Your task to perform on an android device: turn off location Image 0: 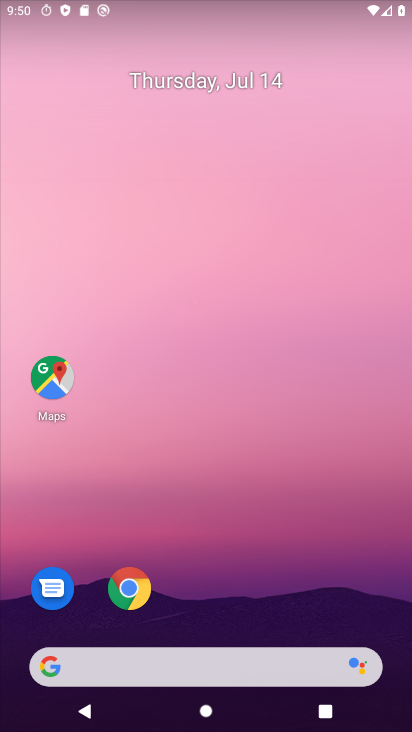
Step 0: drag from (187, 649) to (157, 243)
Your task to perform on an android device: turn off location Image 1: 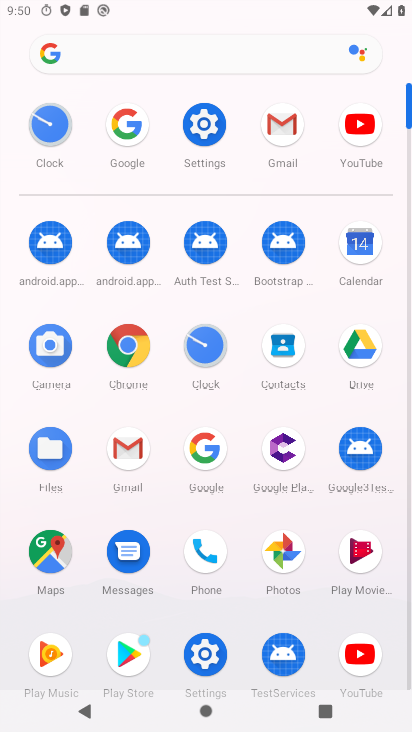
Step 1: click (215, 122)
Your task to perform on an android device: turn off location Image 2: 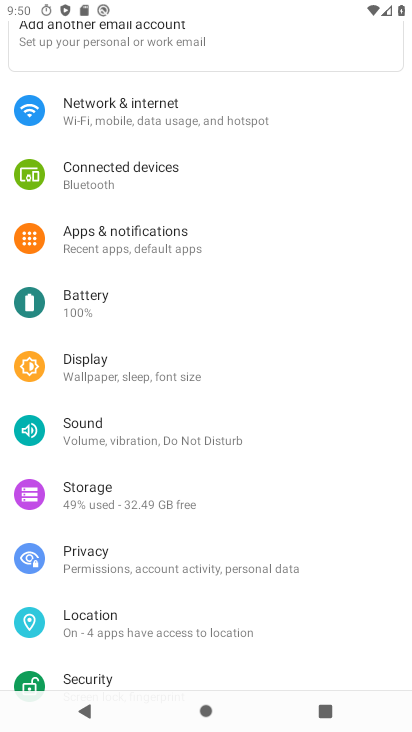
Step 2: click (96, 622)
Your task to perform on an android device: turn off location Image 3: 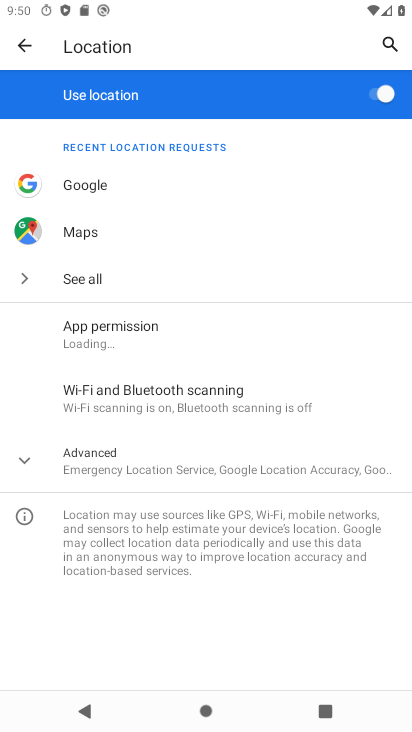
Step 3: click (377, 95)
Your task to perform on an android device: turn off location Image 4: 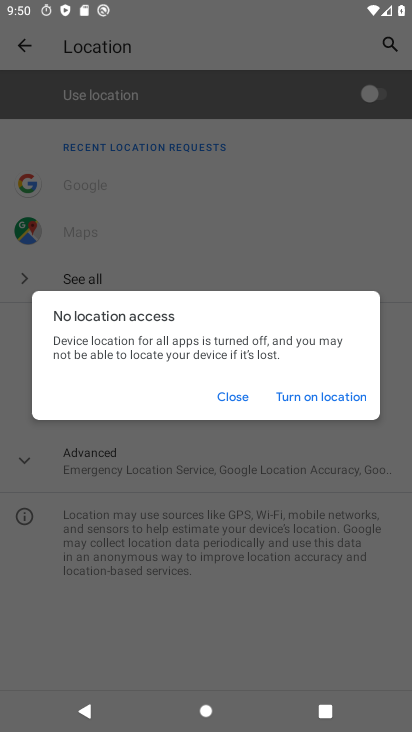
Step 4: click (233, 398)
Your task to perform on an android device: turn off location Image 5: 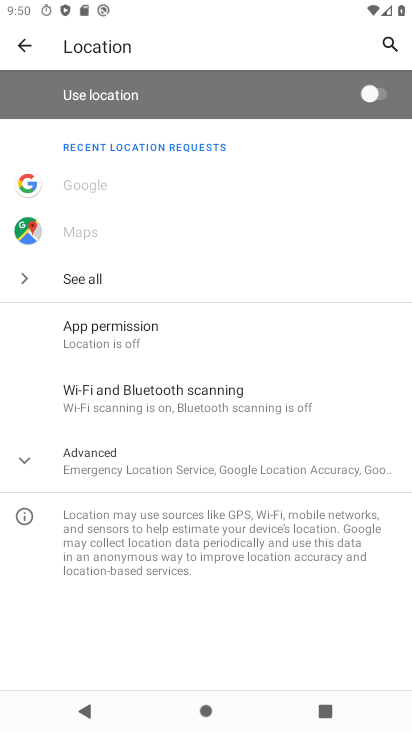
Step 5: task complete